Your task to perform on an android device: turn on bluetooth scan Image 0: 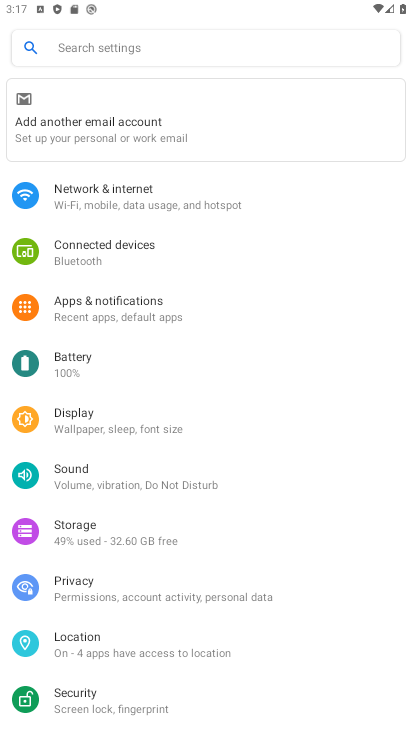
Step 0: click (86, 647)
Your task to perform on an android device: turn on bluetooth scan Image 1: 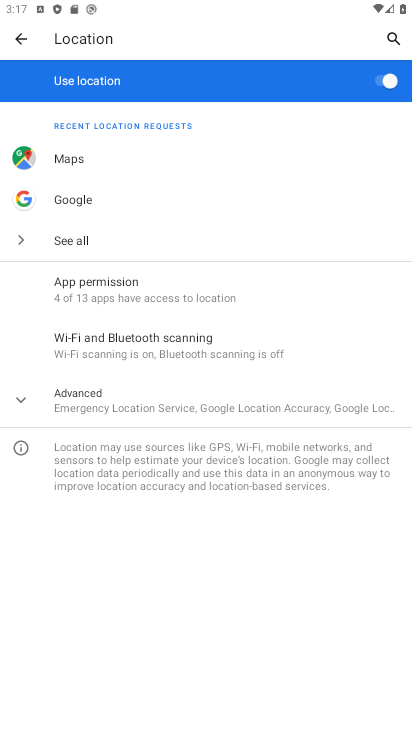
Step 1: click (187, 354)
Your task to perform on an android device: turn on bluetooth scan Image 2: 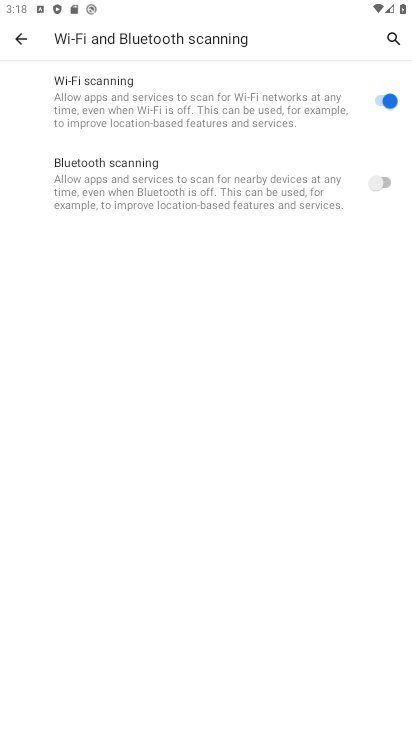
Step 2: click (391, 183)
Your task to perform on an android device: turn on bluetooth scan Image 3: 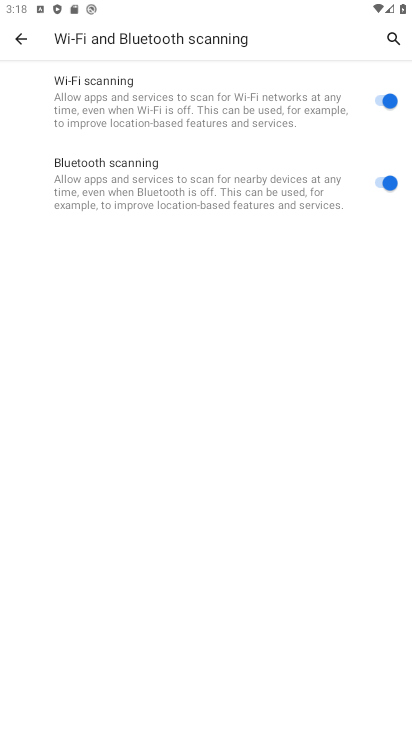
Step 3: task complete